Your task to perform on an android device: install app "Google Translate" Image 0: 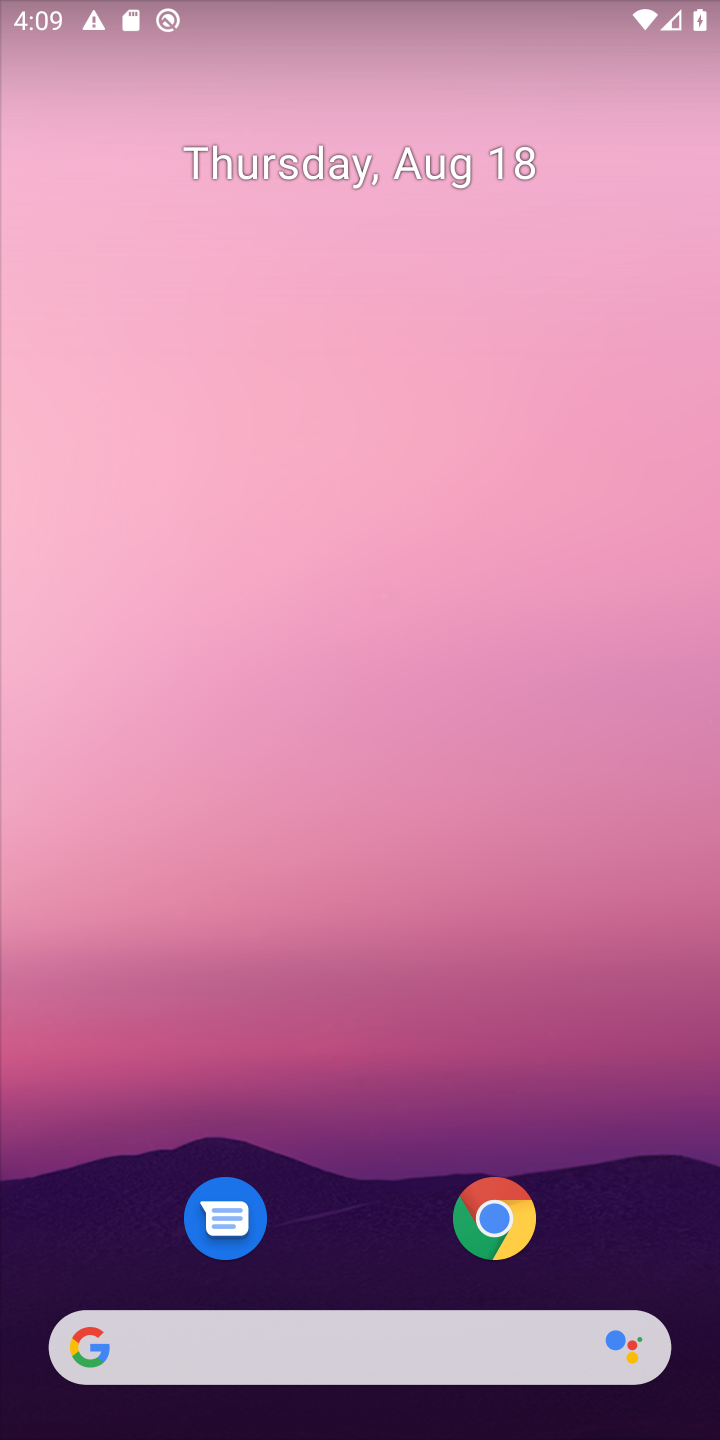
Step 0: drag from (319, 527) to (298, 404)
Your task to perform on an android device: install app "Google Translate" Image 1: 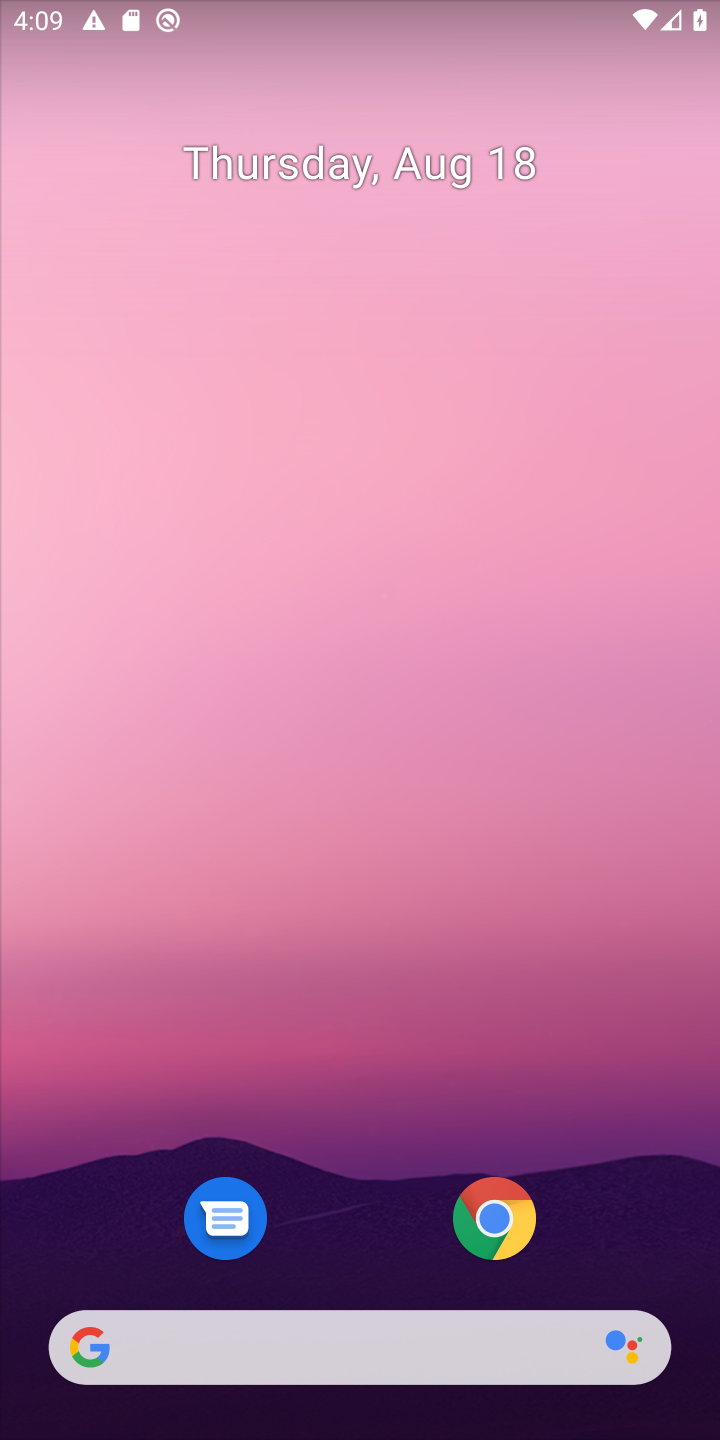
Step 1: drag from (365, 1165) to (381, 452)
Your task to perform on an android device: install app "Google Translate" Image 2: 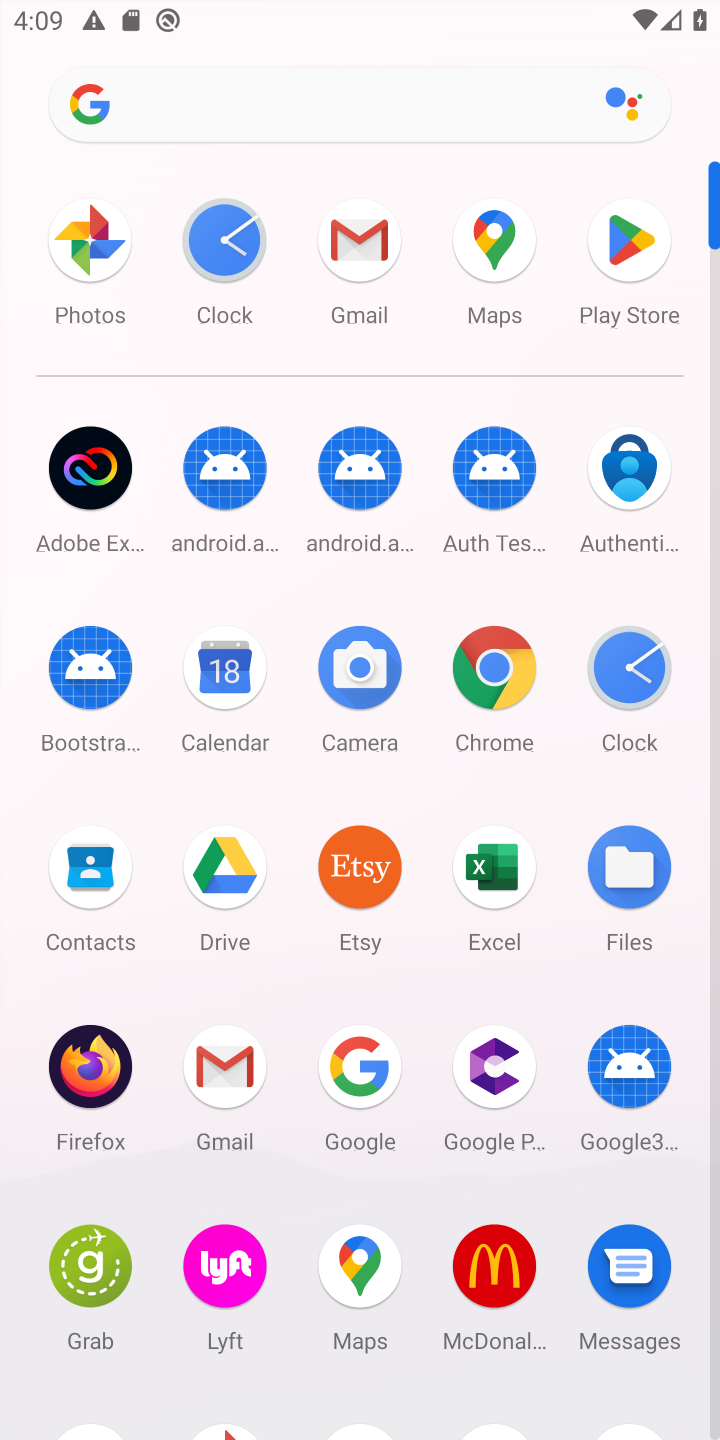
Step 2: click (607, 238)
Your task to perform on an android device: install app "Google Translate" Image 3: 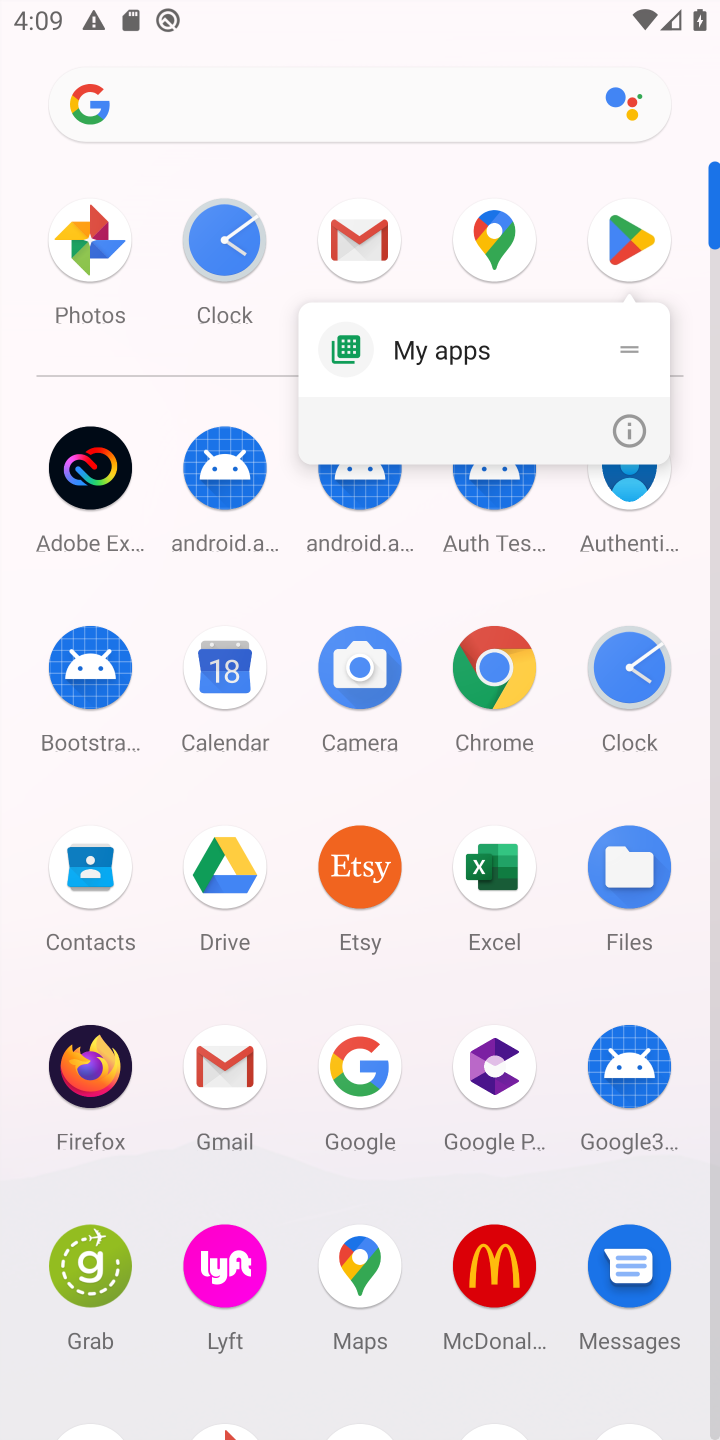
Step 3: click (607, 238)
Your task to perform on an android device: install app "Google Translate" Image 4: 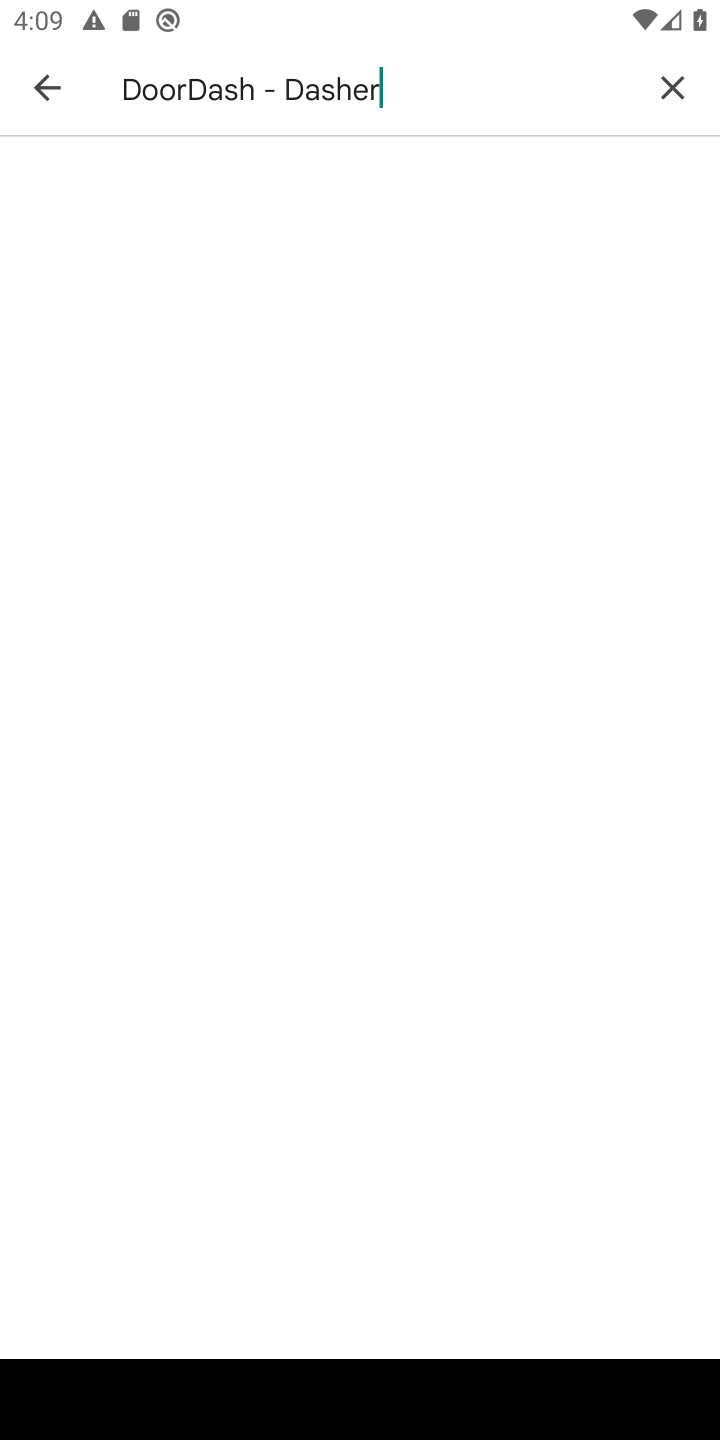
Step 4: click (658, 89)
Your task to perform on an android device: install app "Google Translate" Image 5: 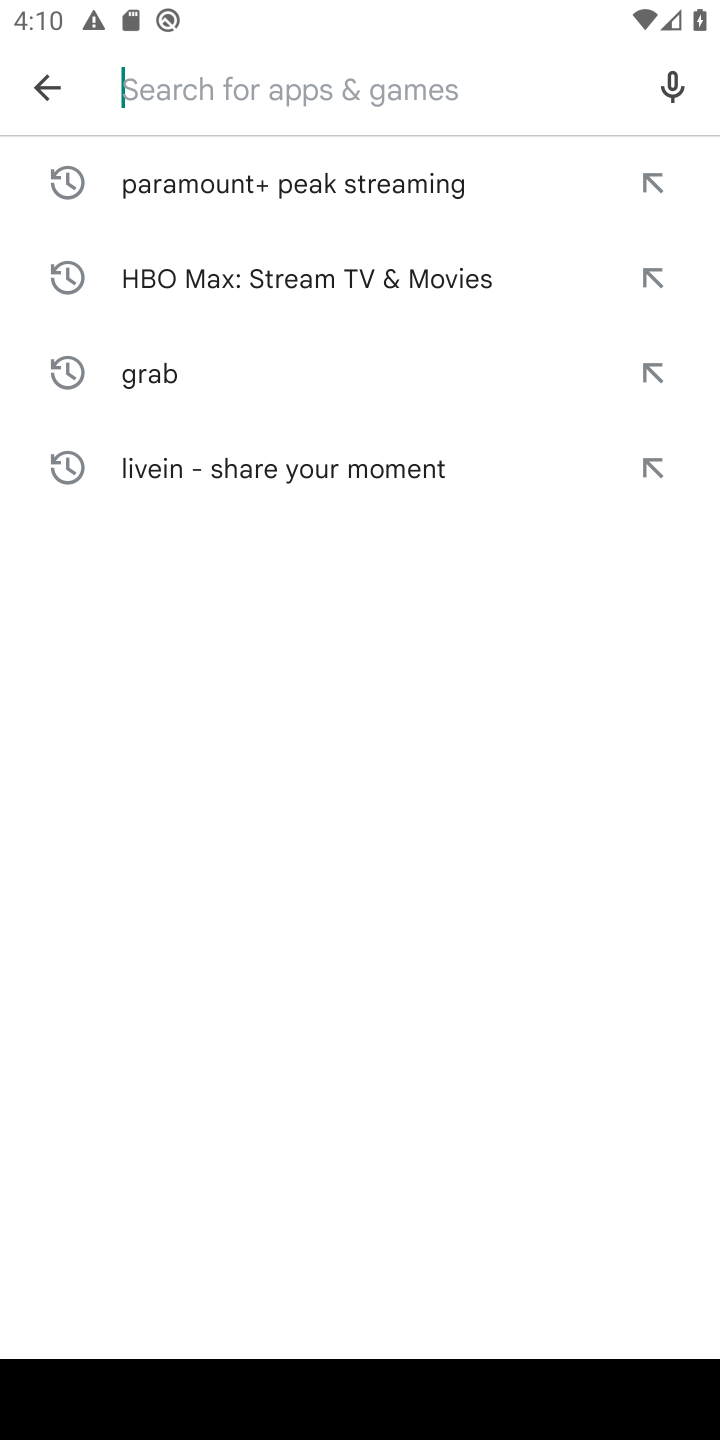
Step 5: type "Google Translate"
Your task to perform on an android device: install app "Google Translate" Image 6: 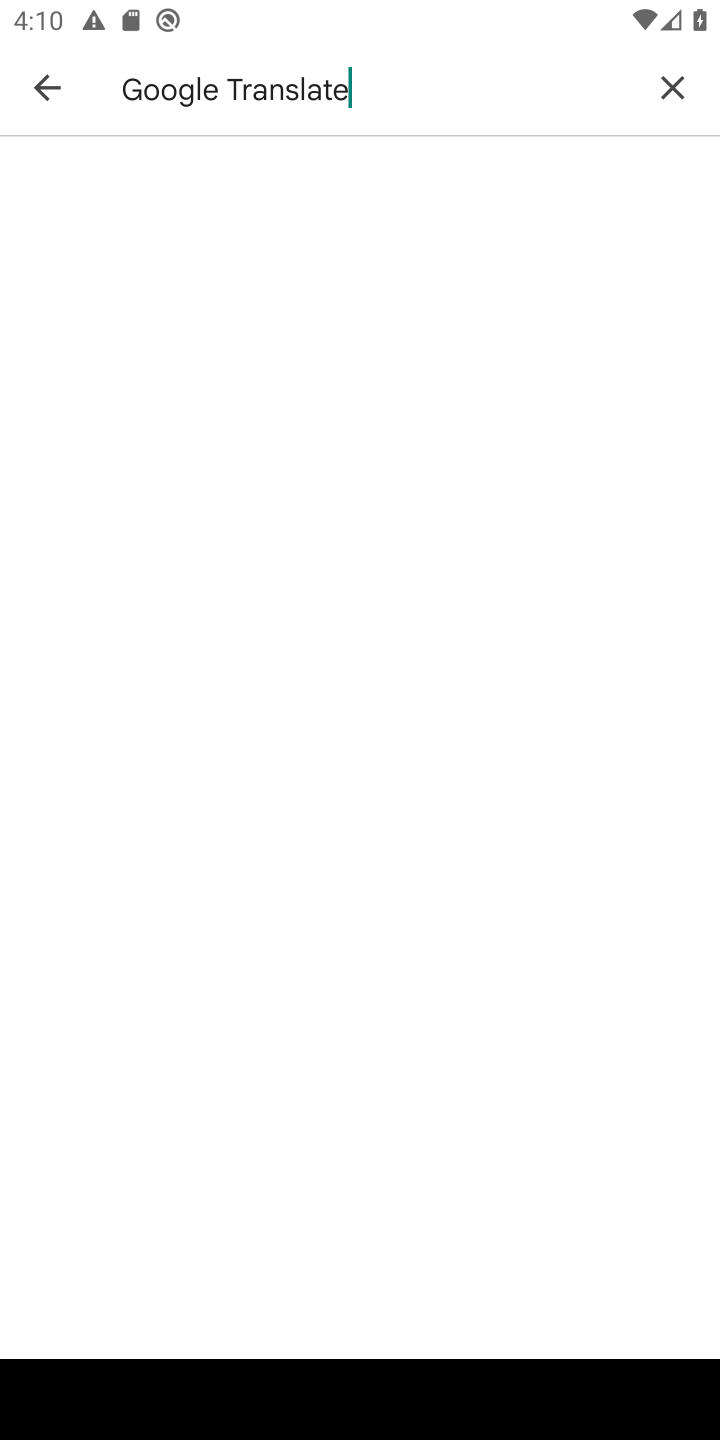
Step 6: task complete